Your task to perform on an android device: Open calendar and show me the fourth week of next month Image 0: 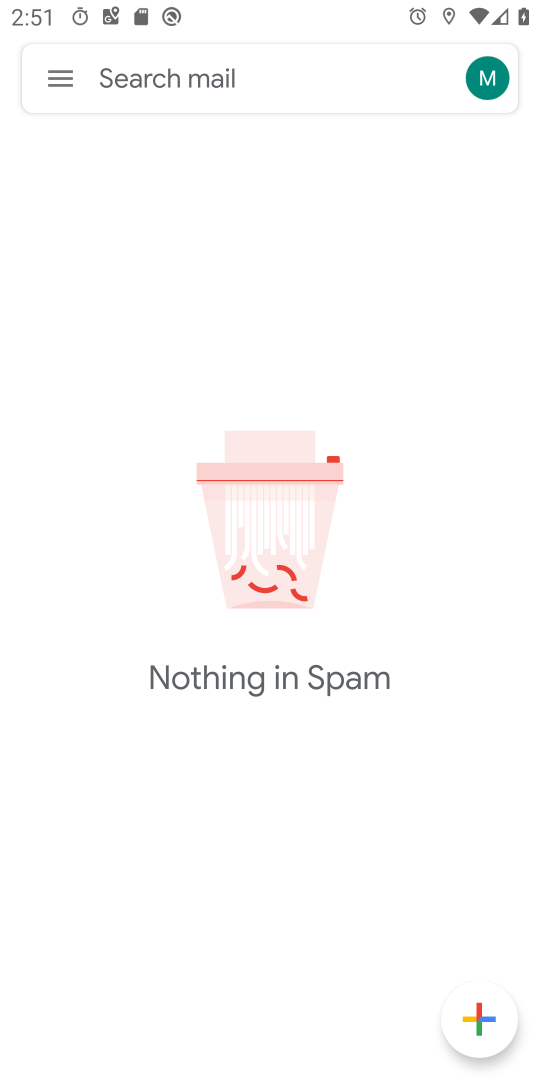
Step 0: drag from (256, 915) to (252, 269)
Your task to perform on an android device: Open calendar and show me the fourth week of next month Image 1: 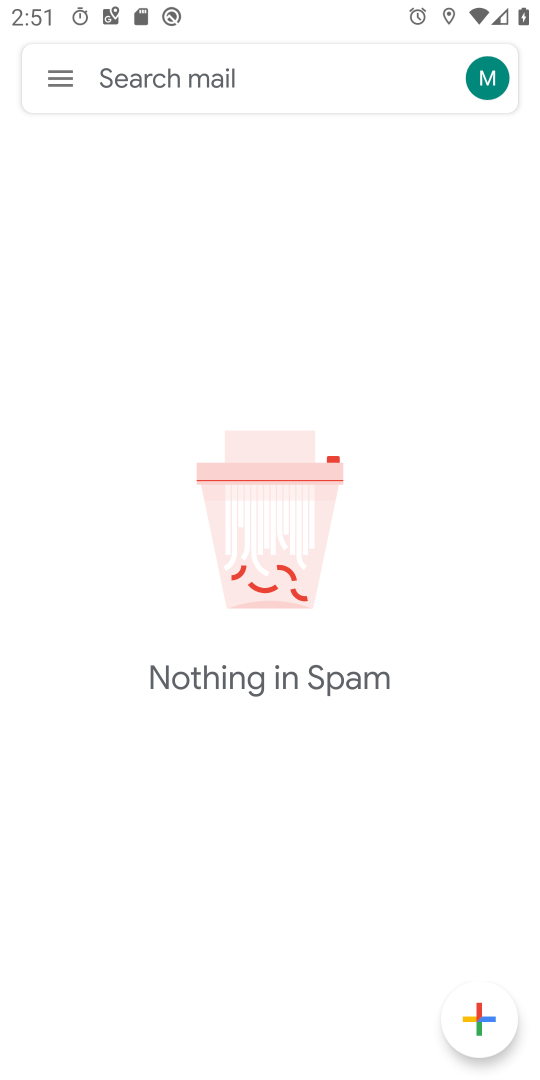
Step 1: press home button
Your task to perform on an android device: Open calendar and show me the fourth week of next month Image 2: 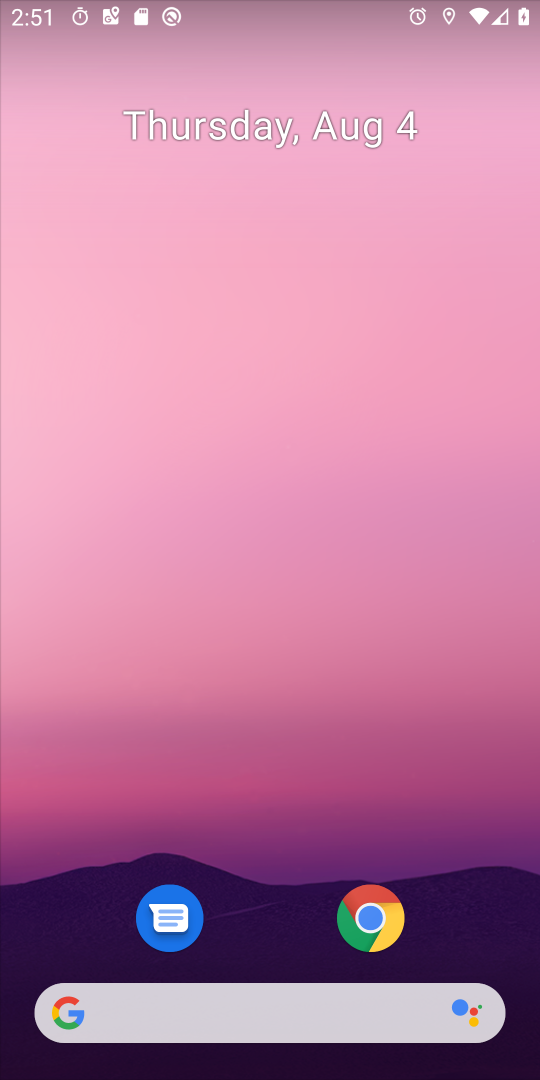
Step 2: drag from (246, 863) to (268, 174)
Your task to perform on an android device: Open calendar and show me the fourth week of next month Image 3: 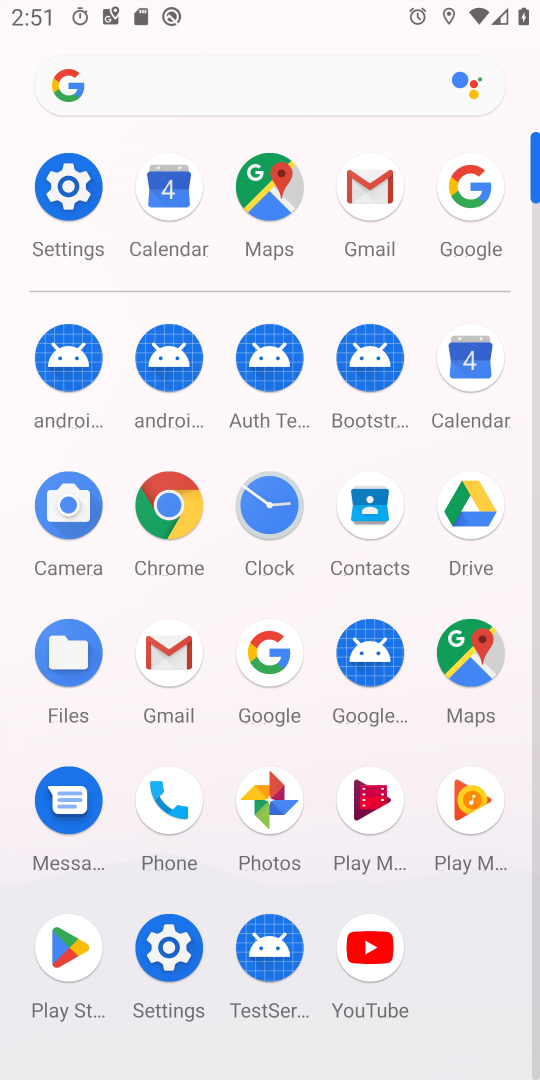
Step 3: click (64, 225)
Your task to perform on an android device: Open calendar and show me the fourth week of next month Image 4: 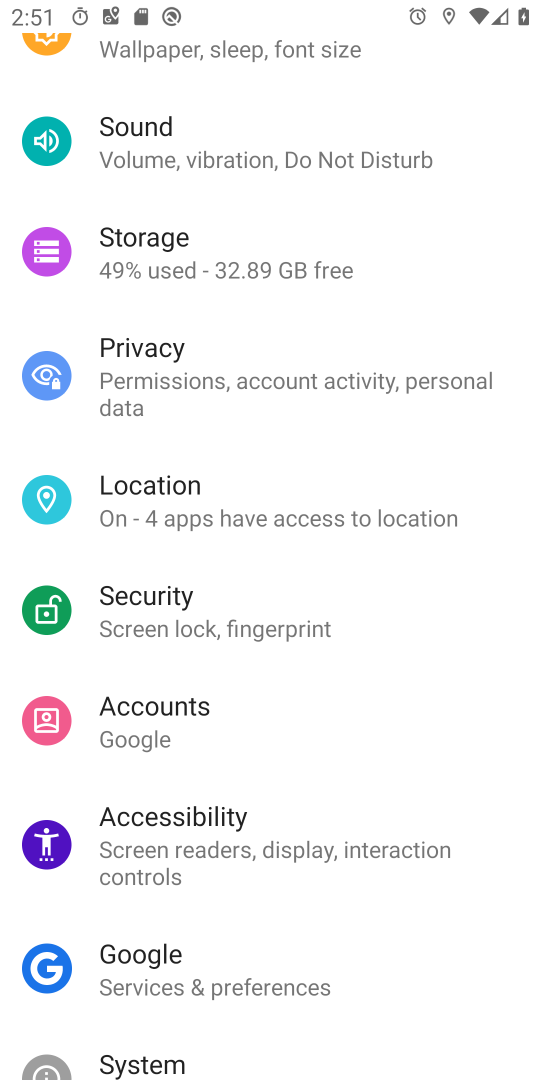
Step 4: drag from (234, 862) to (234, 244)
Your task to perform on an android device: Open calendar and show me the fourth week of next month Image 5: 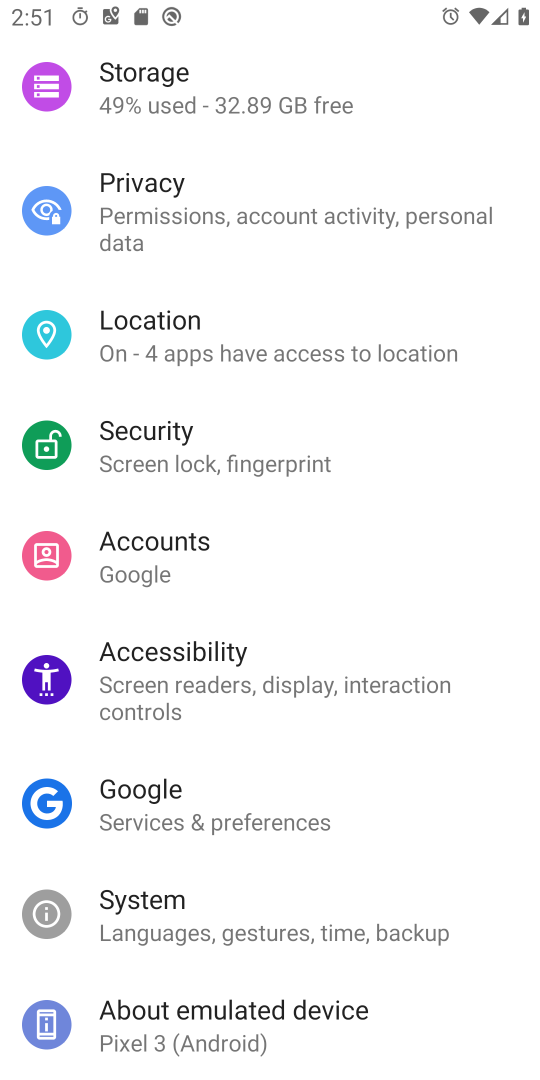
Step 5: click (223, 1025)
Your task to perform on an android device: Open calendar and show me the fourth week of next month Image 6: 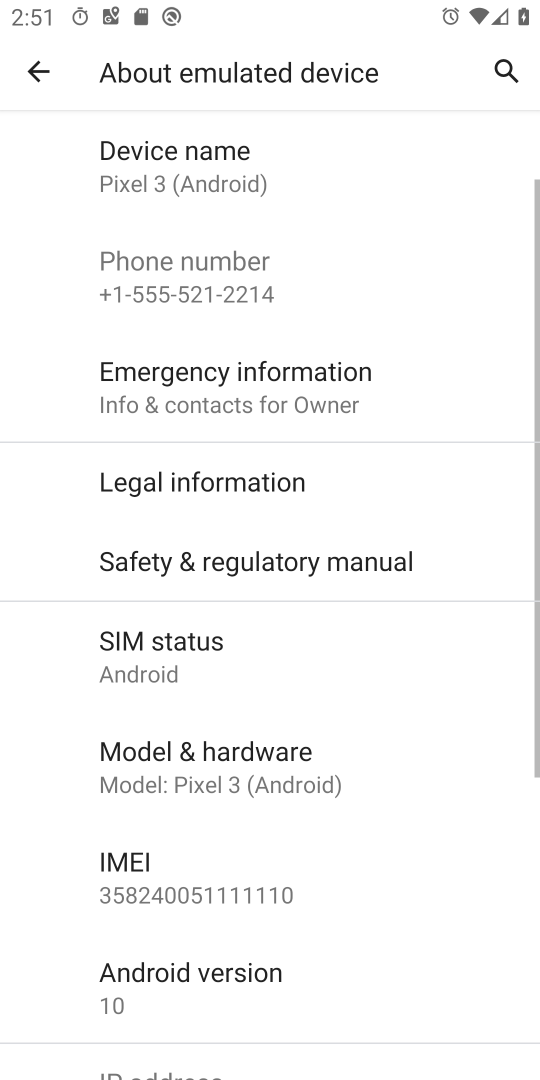
Step 6: task complete